Your task to perform on an android device: remove spam from my inbox in the gmail app Image 0: 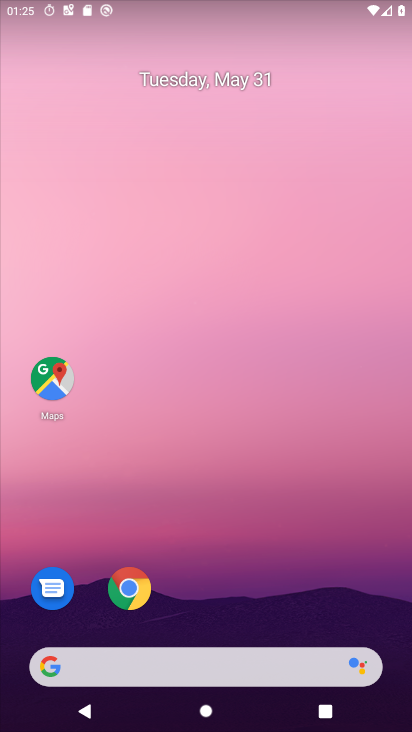
Step 0: drag from (216, 644) to (262, 3)
Your task to perform on an android device: remove spam from my inbox in the gmail app Image 1: 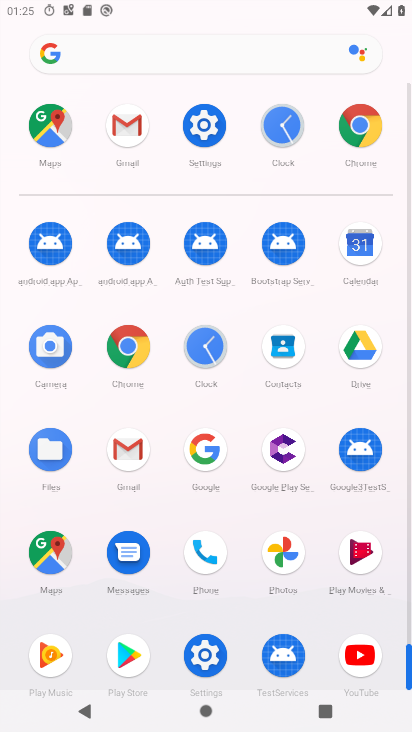
Step 1: click (141, 460)
Your task to perform on an android device: remove spam from my inbox in the gmail app Image 2: 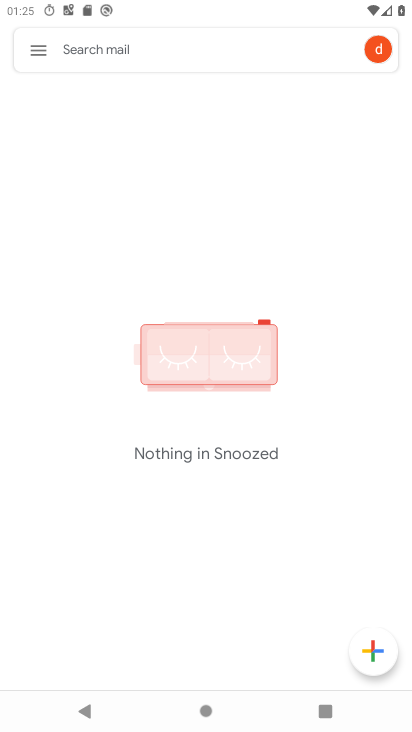
Step 2: click (40, 50)
Your task to perform on an android device: remove spam from my inbox in the gmail app Image 3: 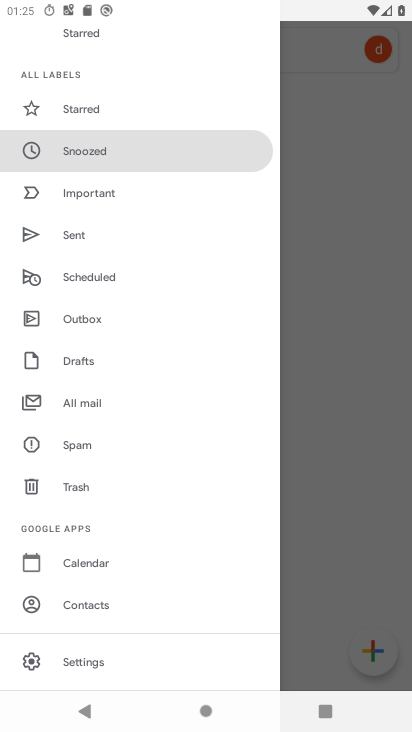
Step 3: click (118, 444)
Your task to perform on an android device: remove spam from my inbox in the gmail app Image 4: 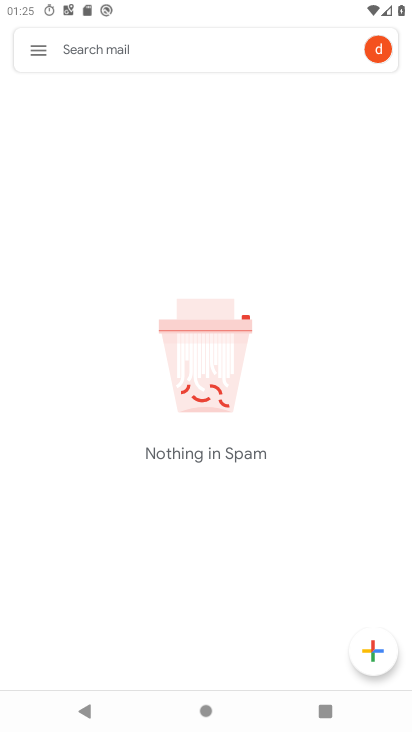
Step 4: task complete